Your task to perform on an android device: Go to accessibility settings Image 0: 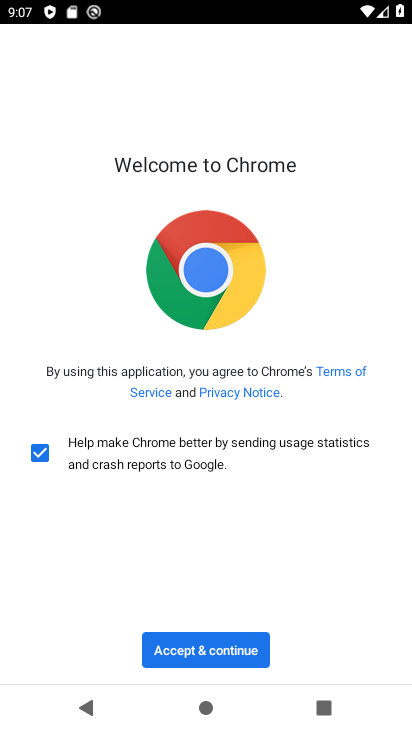
Step 0: press home button
Your task to perform on an android device: Go to accessibility settings Image 1: 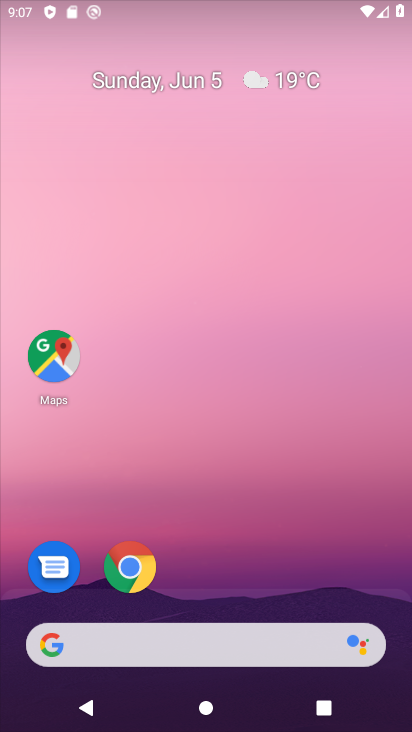
Step 1: drag from (241, 666) to (195, 60)
Your task to perform on an android device: Go to accessibility settings Image 2: 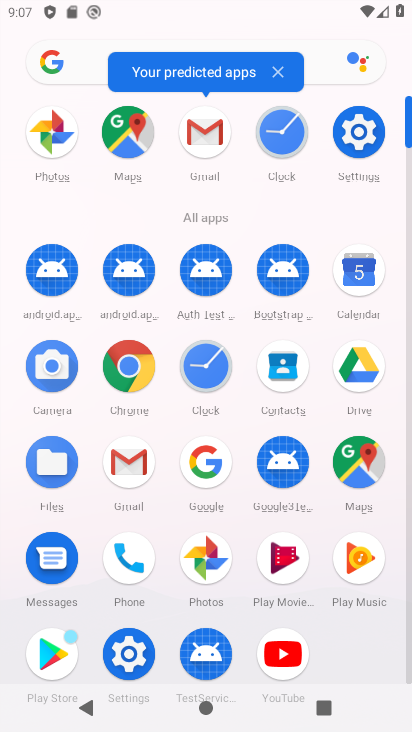
Step 2: click (363, 142)
Your task to perform on an android device: Go to accessibility settings Image 3: 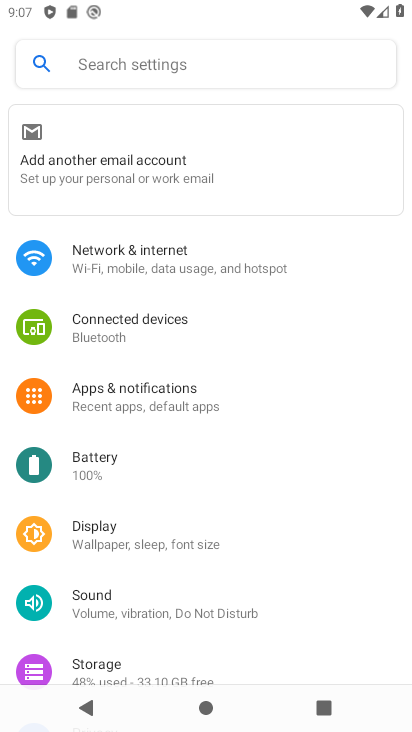
Step 3: drag from (202, 609) to (178, 6)
Your task to perform on an android device: Go to accessibility settings Image 4: 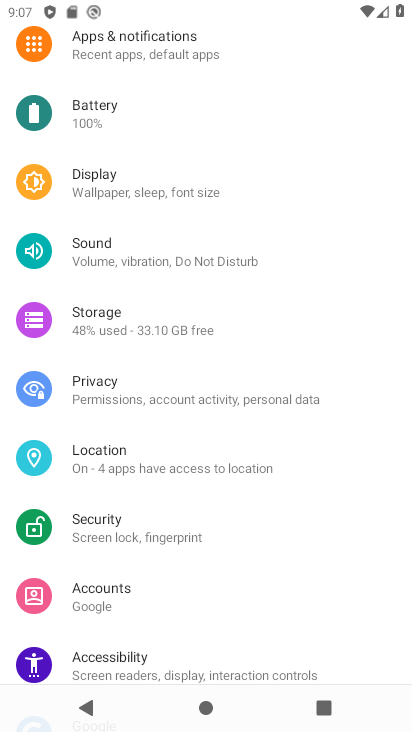
Step 4: click (199, 660)
Your task to perform on an android device: Go to accessibility settings Image 5: 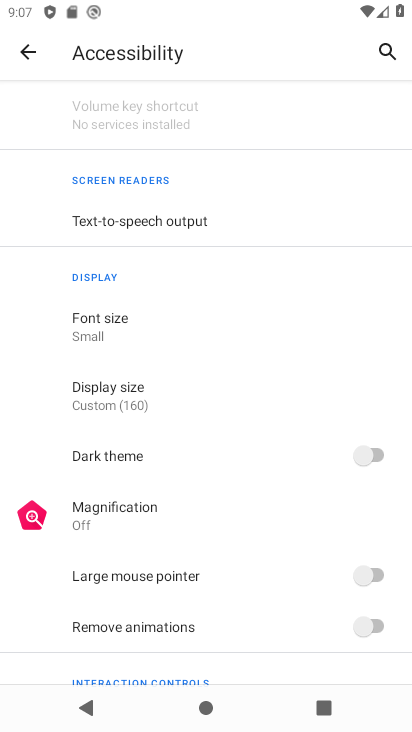
Step 5: task complete